Your task to perform on an android device: Find coffee shops on Maps Image 0: 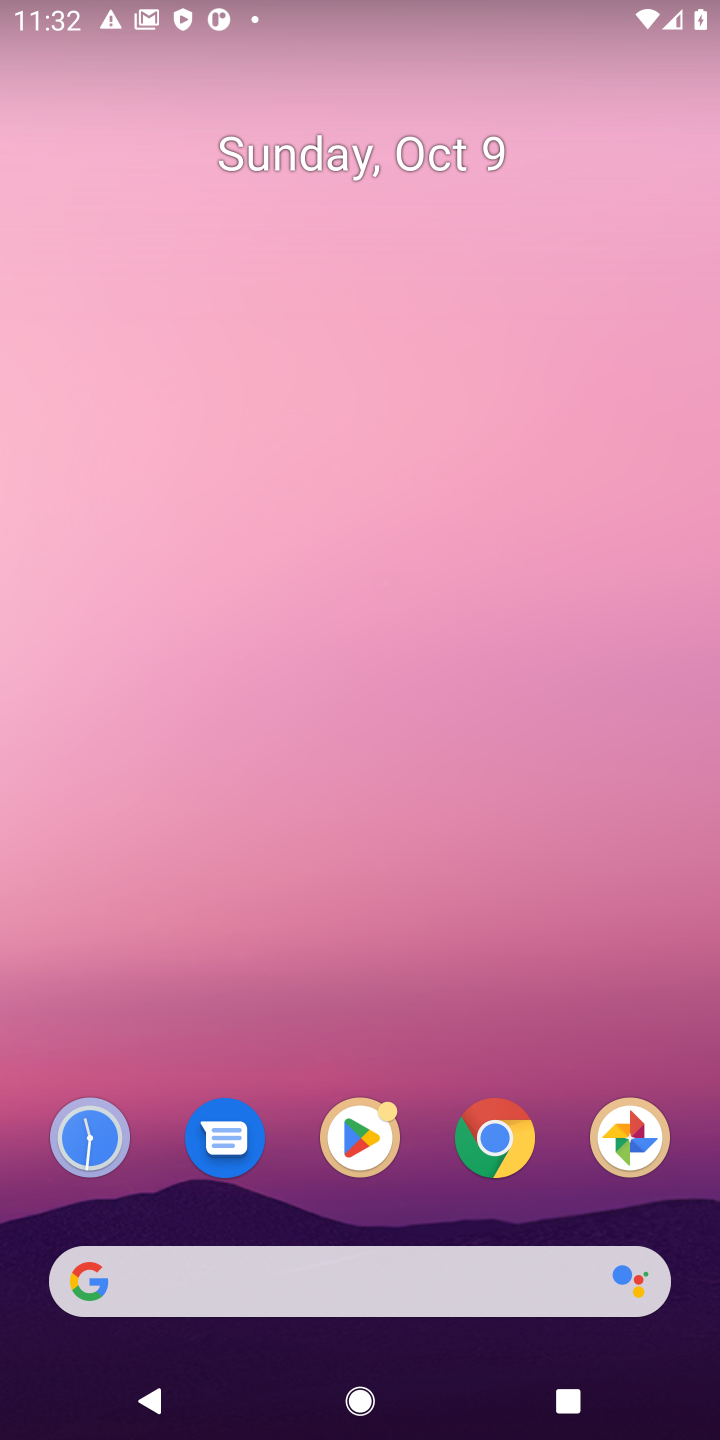
Step 0: drag from (433, 1211) to (267, 304)
Your task to perform on an android device: Find coffee shops on Maps Image 1: 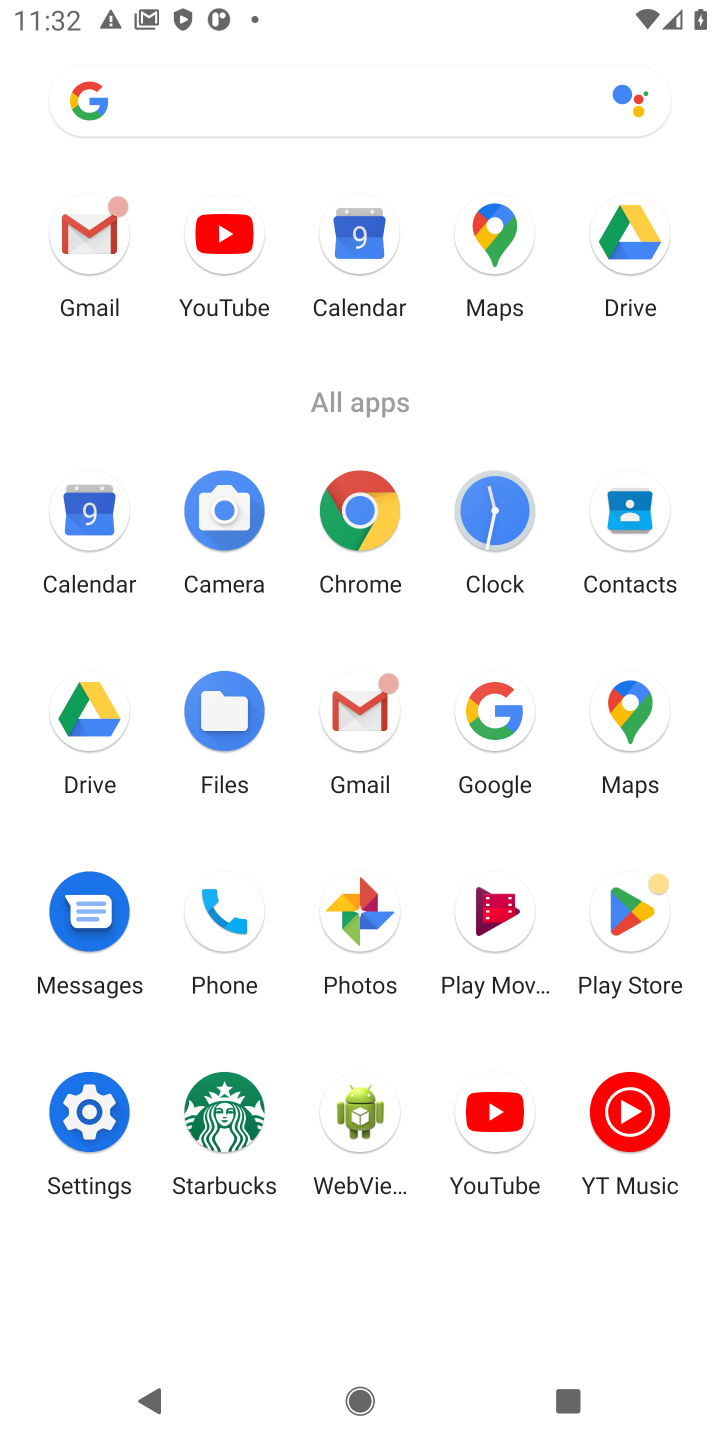
Step 1: click (627, 725)
Your task to perform on an android device: Find coffee shops on Maps Image 2: 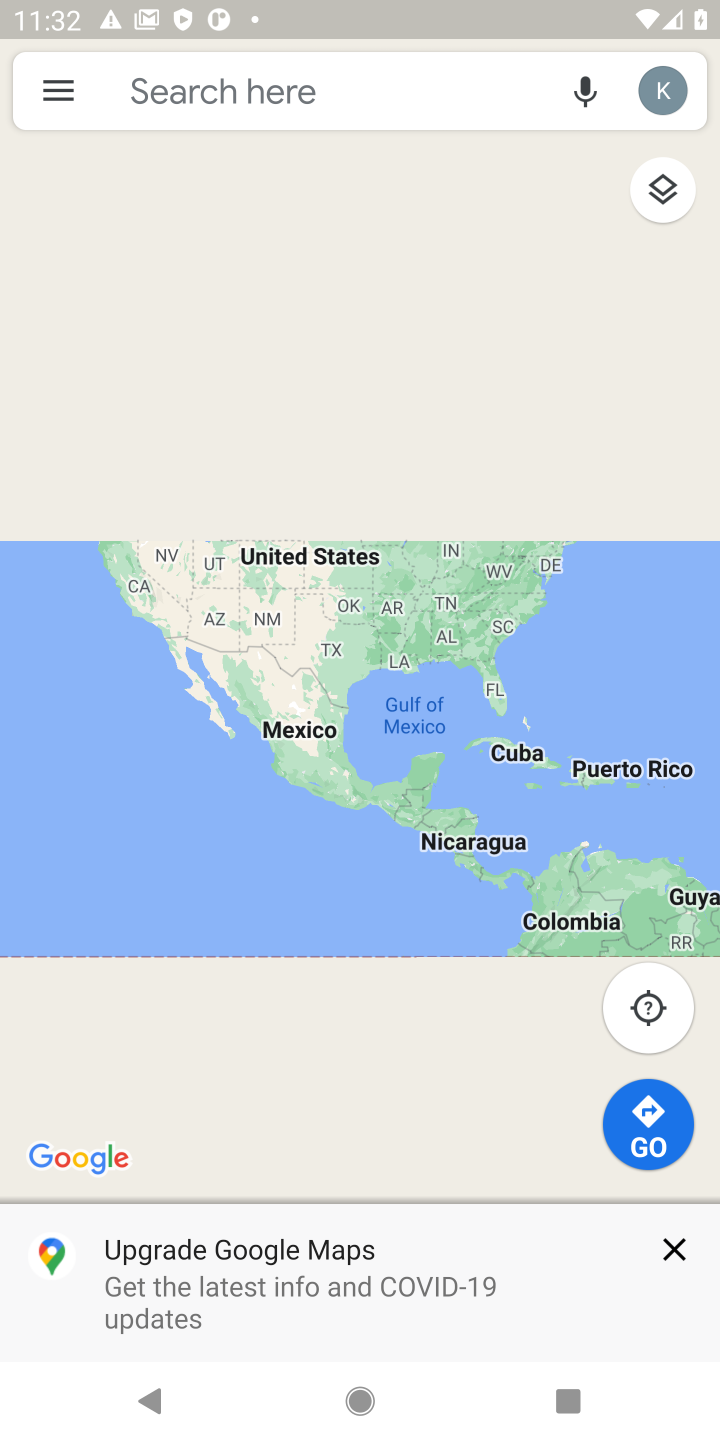
Step 2: click (303, 84)
Your task to perform on an android device: Find coffee shops on Maps Image 3: 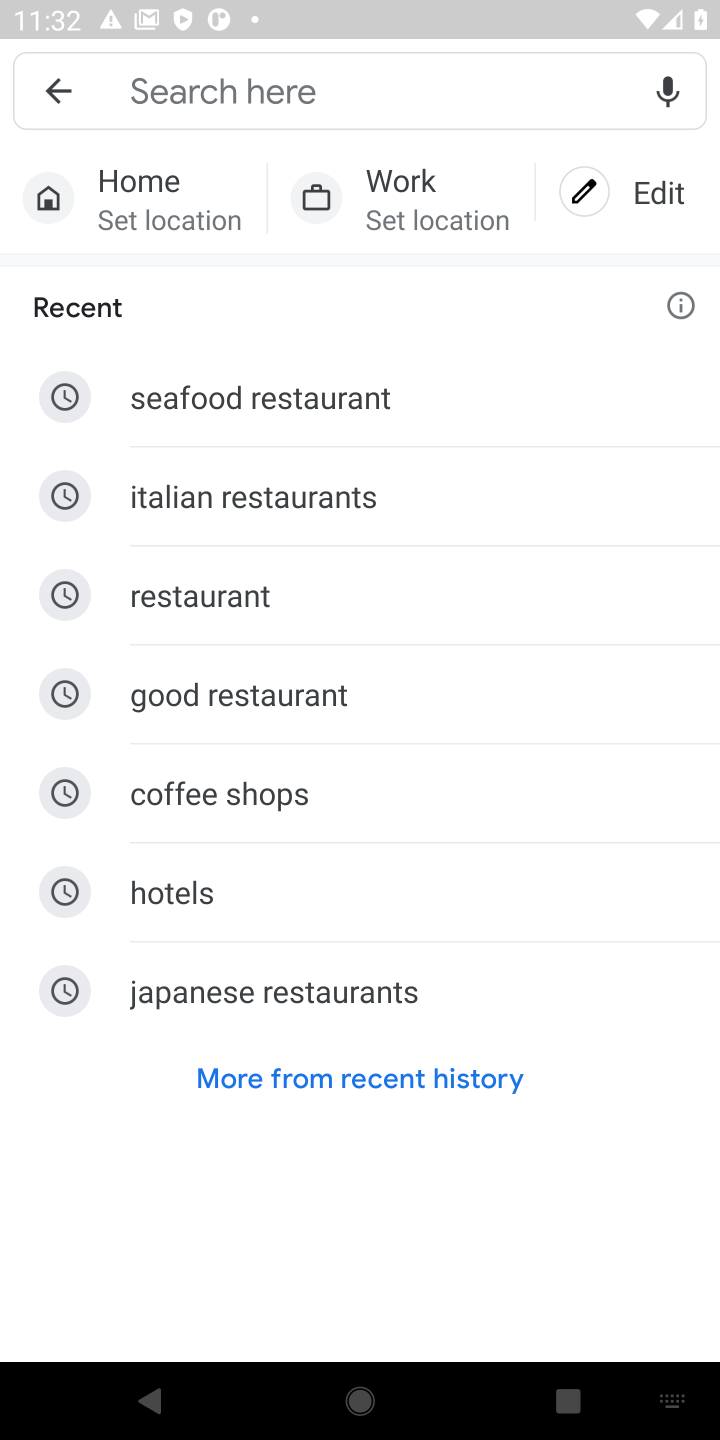
Step 3: click (492, 783)
Your task to perform on an android device: Find coffee shops on Maps Image 4: 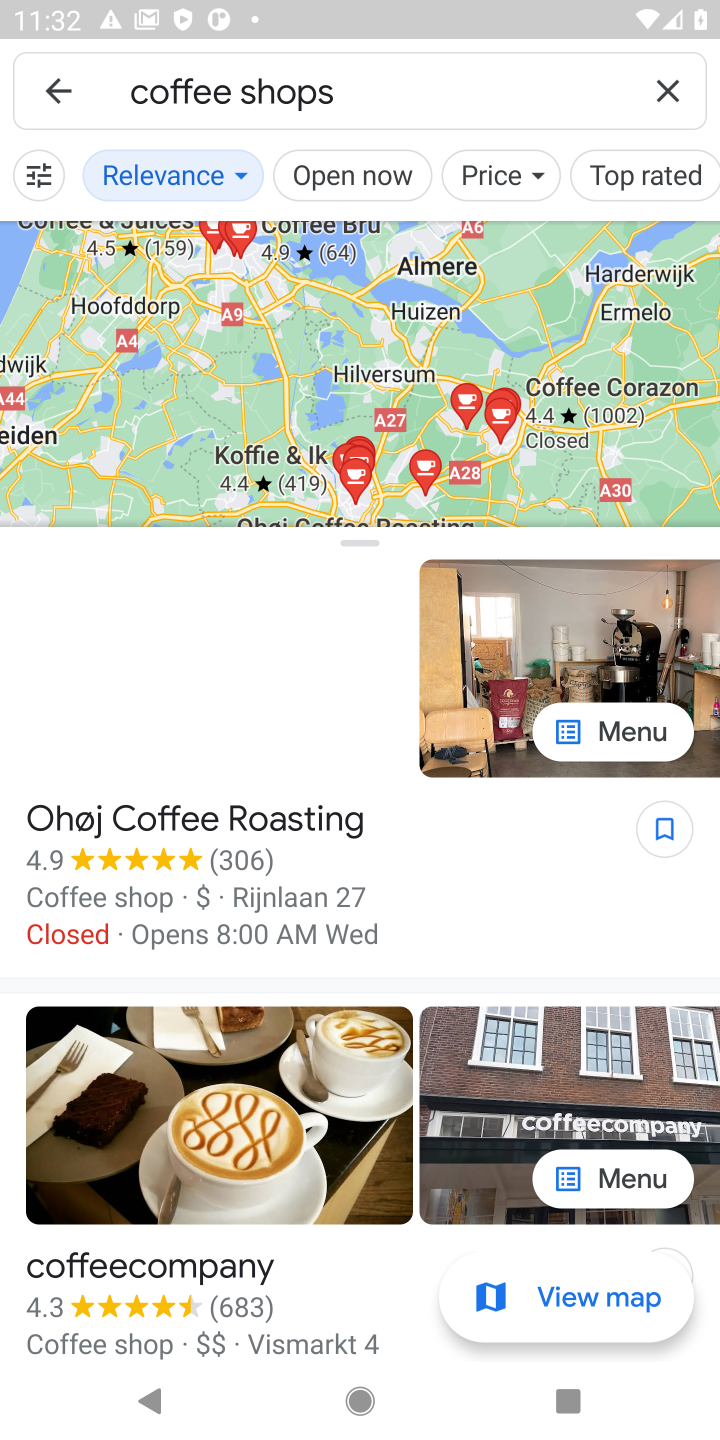
Step 4: task complete